Your task to perform on an android device: turn notification dots on Image 0: 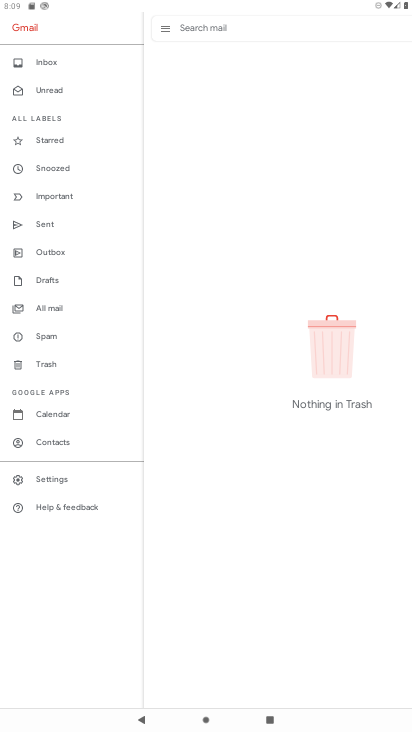
Step 0: press home button
Your task to perform on an android device: turn notification dots on Image 1: 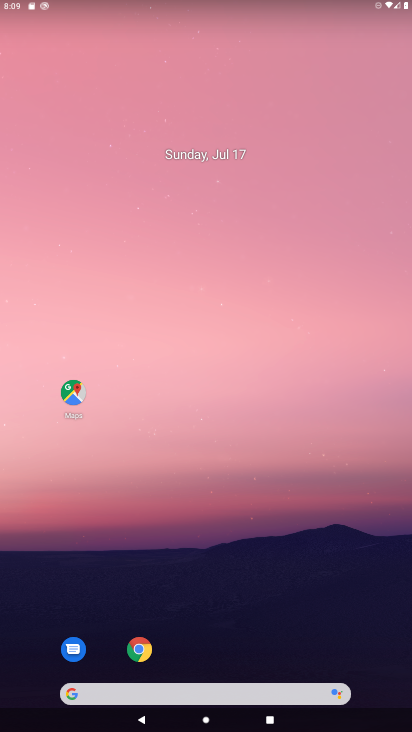
Step 1: drag from (215, 666) to (198, 111)
Your task to perform on an android device: turn notification dots on Image 2: 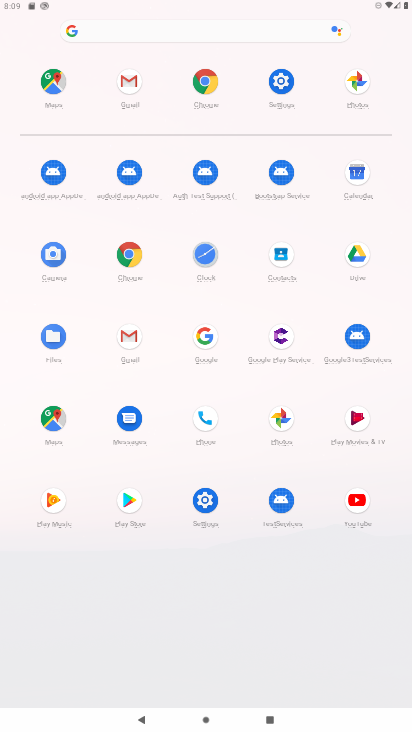
Step 2: click (289, 86)
Your task to perform on an android device: turn notification dots on Image 3: 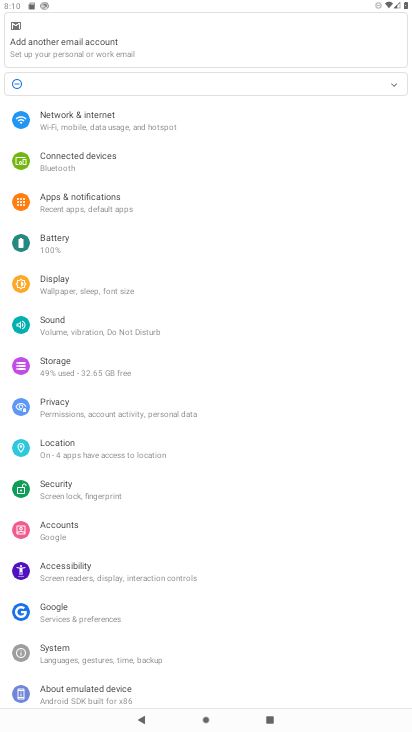
Step 3: click (70, 203)
Your task to perform on an android device: turn notification dots on Image 4: 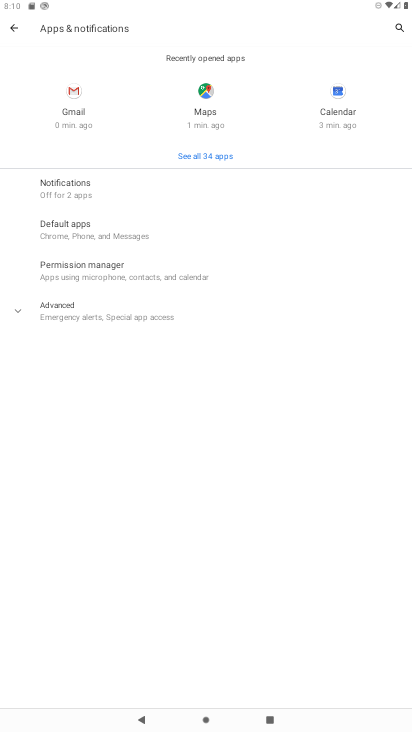
Step 4: click (68, 182)
Your task to perform on an android device: turn notification dots on Image 5: 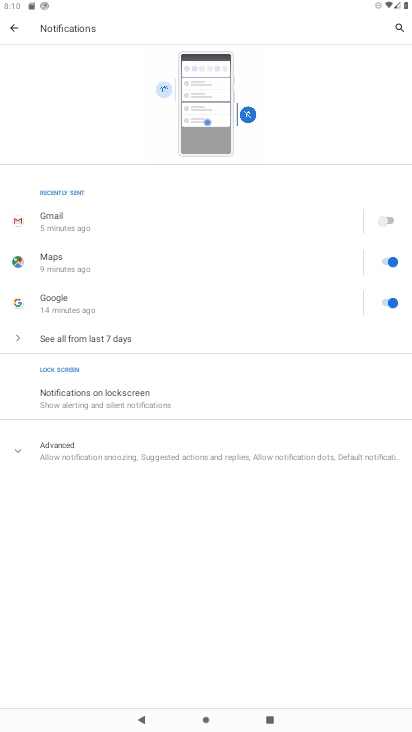
Step 5: click (98, 439)
Your task to perform on an android device: turn notification dots on Image 6: 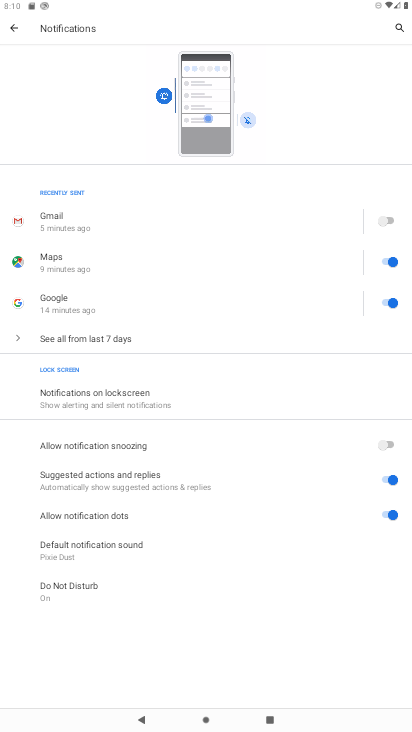
Step 6: task complete